Your task to perform on an android device: Go to Google Image 0: 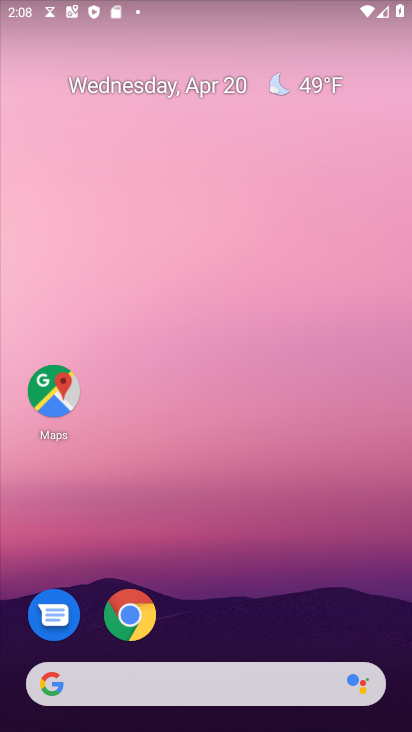
Step 0: drag from (253, 609) to (266, 160)
Your task to perform on an android device: Go to Google Image 1: 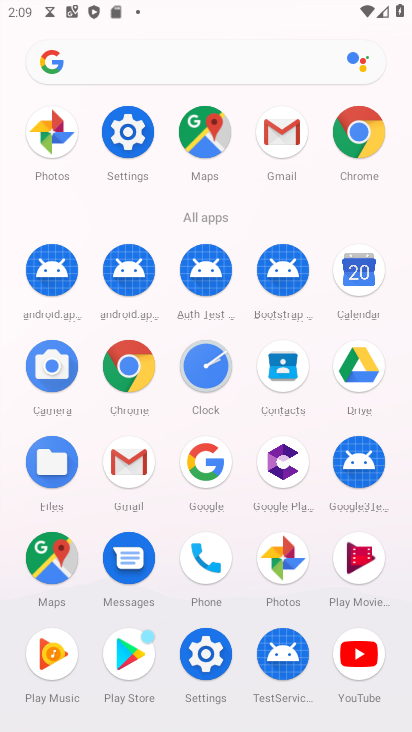
Step 1: click (208, 465)
Your task to perform on an android device: Go to Google Image 2: 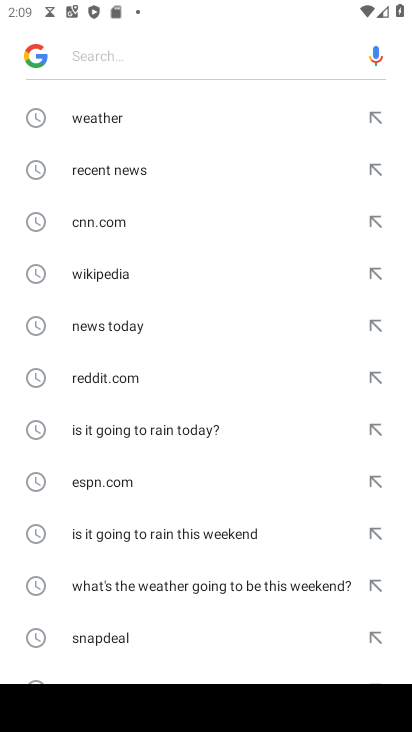
Step 2: task complete